Your task to perform on an android device: turn off sleep mode Image 0: 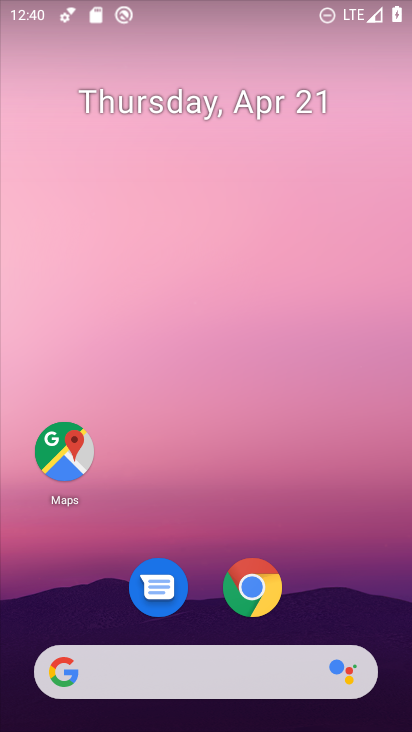
Step 0: drag from (294, 450) to (270, 87)
Your task to perform on an android device: turn off sleep mode Image 1: 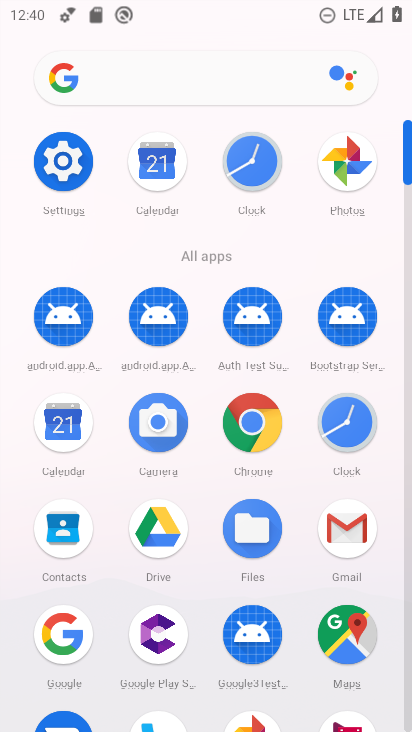
Step 1: click (66, 164)
Your task to perform on an android device: turn off sleep mode Image 2: 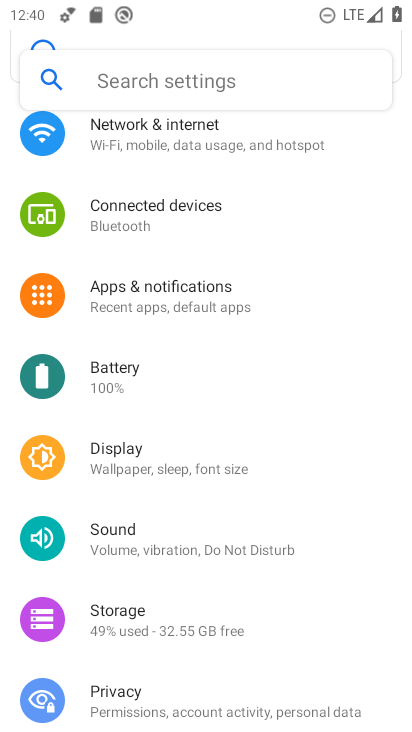
Step 2: click (110, 449)
Your task to perform on an android device: turn off sleep mode Image 3: 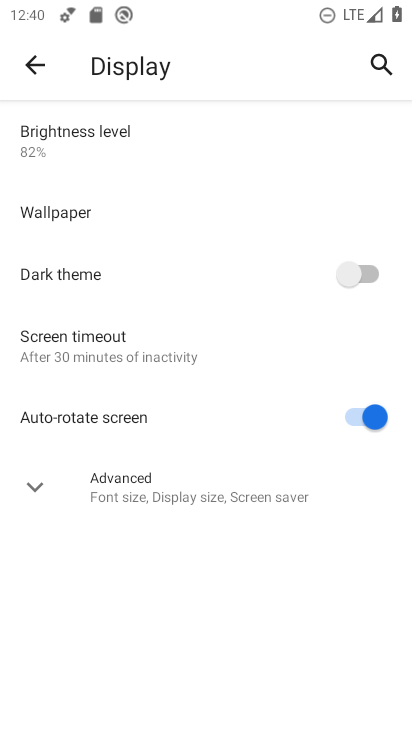
Step 3: task complete